Your task to perform on an android device: toggle javascript in the chrome app Image 0: 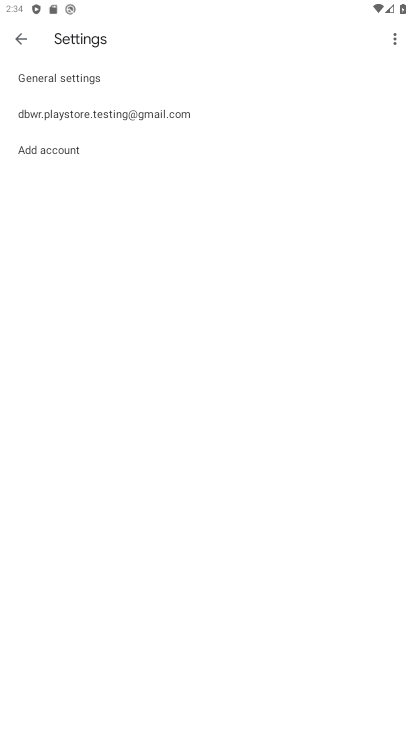
Step 0: press home button
Your task to perform on an android device: toggle javascript in the chrome app Image 1: 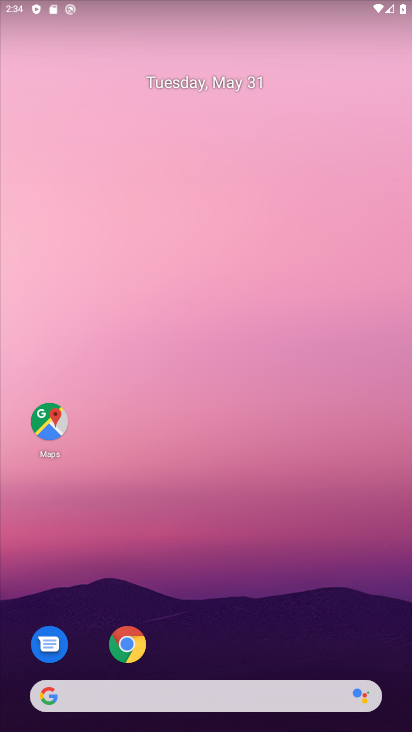
Step 1: click (130, 652)
Your task to perform on an android device: toggle javascript in the chrome app Image 2: 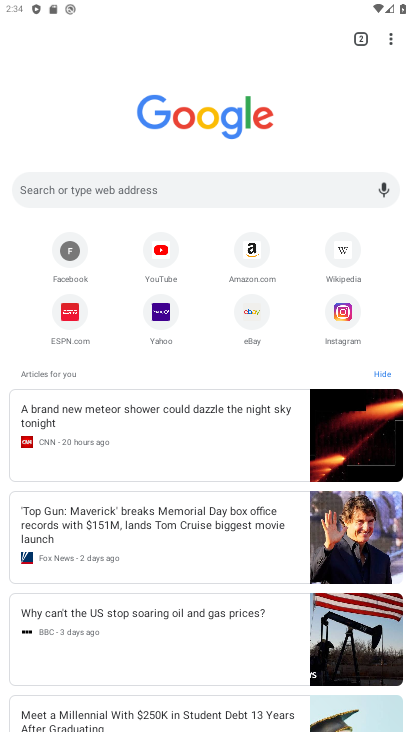
Step 2: click (395, 41)
Your task to perform on an android device: toggle javascript in the chrome app Image 3: 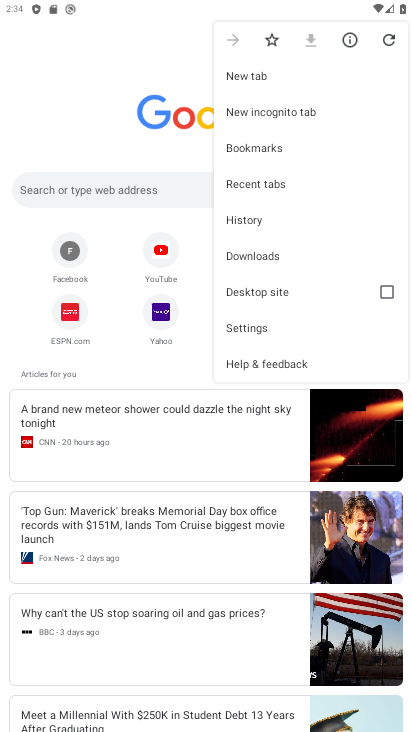
Step 3: click (249, 327)
Your task to perform on an android device: toggle javascript in the chrome app Image 4: 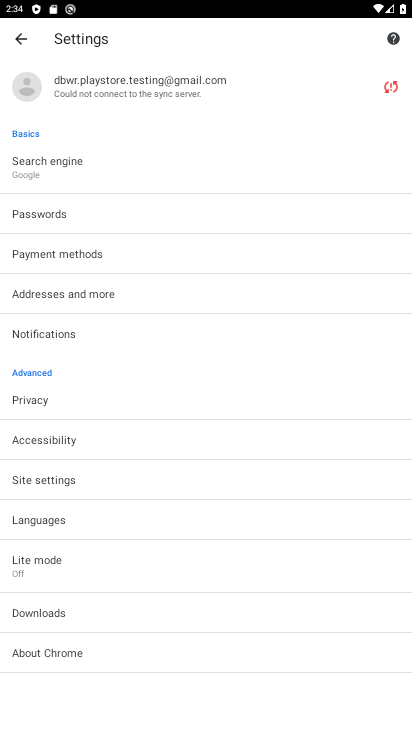
Step 4: click (55, 473)
Your task to perform on an android device: toggle javascript in the chrome app Image 5: 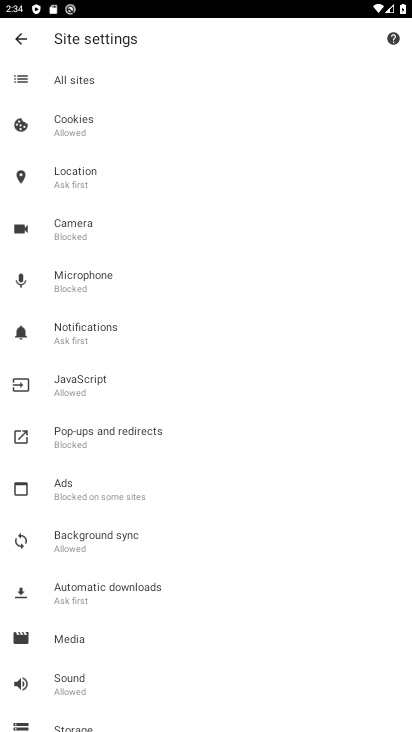
Step 5: click (48, 394)
Your task to perform on an android device: toggle javascript in the chrome app Image 6: 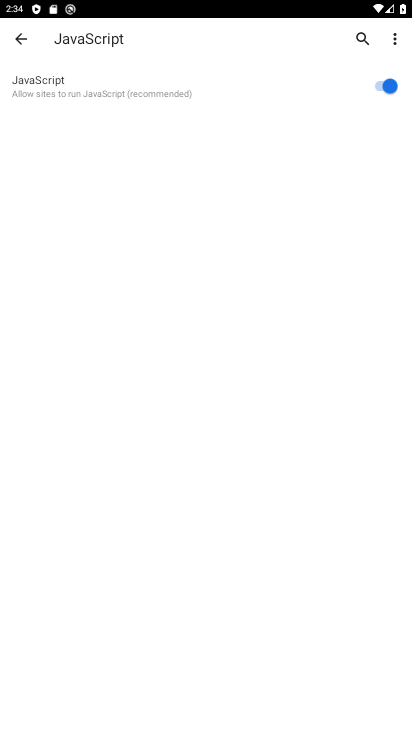
Step 6: click (386, 86)
Your task to perform on an android device: toggle javascript in the chrome app Image 7: 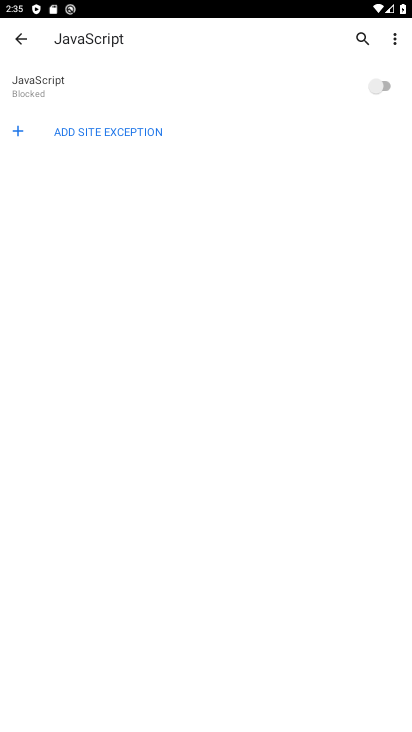
Step 7: task complete